Your task to perform on an android device: add a label to a message in the gmail app Image 0: 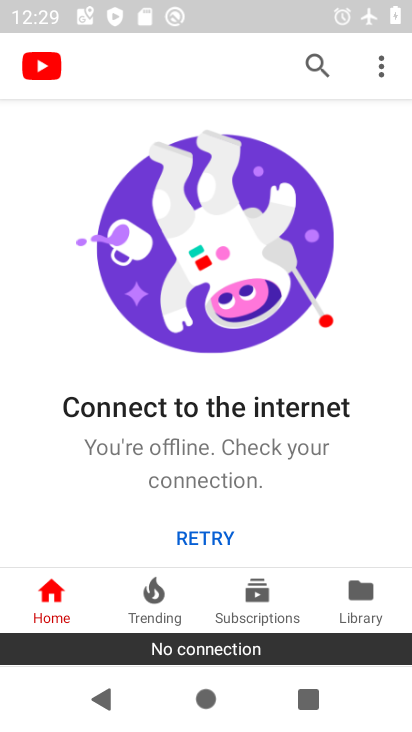
Step 0: press back button
Your task to perform on an android device: add a label to a message in the gmail app Image 1: 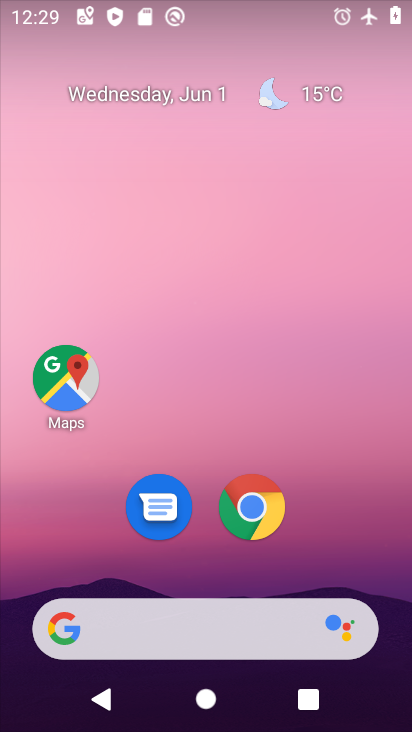
Step 1: drag from (328, 563) to (250, 112)
Your task to perform on an android device: add a label to a message in the gmail app Image 2: 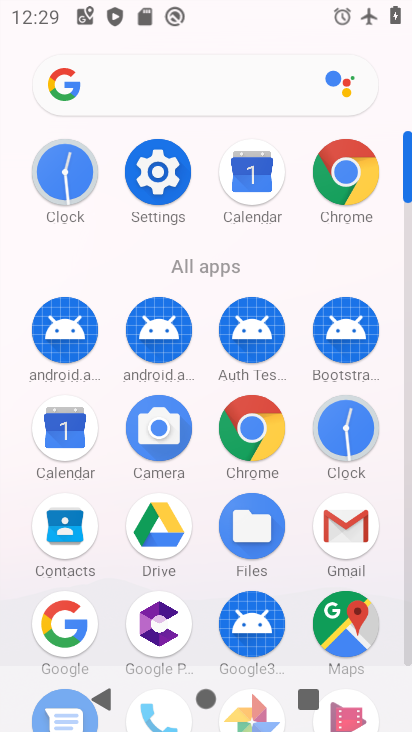
Step 2: click (343, 527)
Your task to perform on an android device: add a label to a message in the gmail app Image 3: 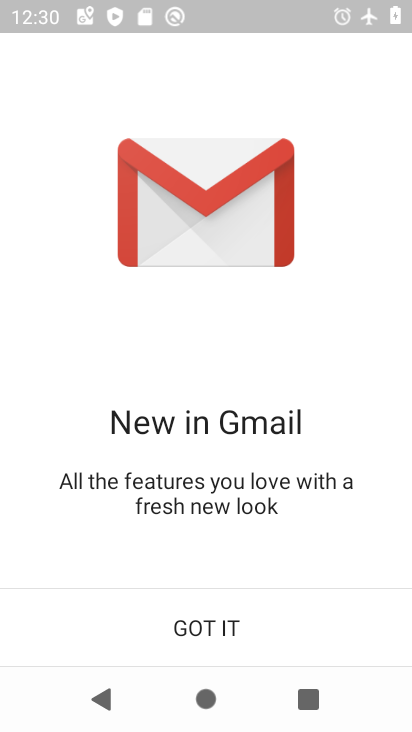
Step 3: click (214, 620)
Your task to perform on an android device: add a label to a message in the gmail app Image 4: 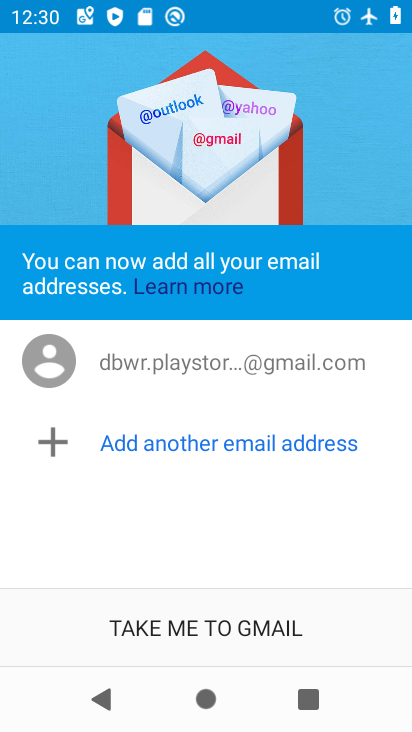
Step 4: click (214, 620)
Your task to perform on an android device: add a label to a message in the gmail app Image 5: 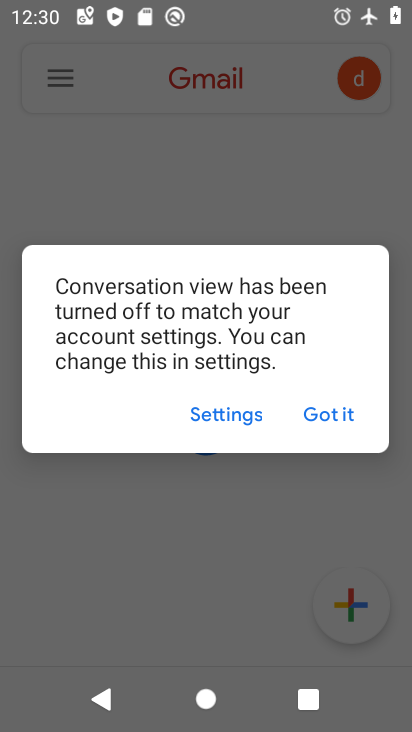
Step 5: click (336, 416)
Your task to perform on an android device: add a label to a message in the gmail app Image 6: 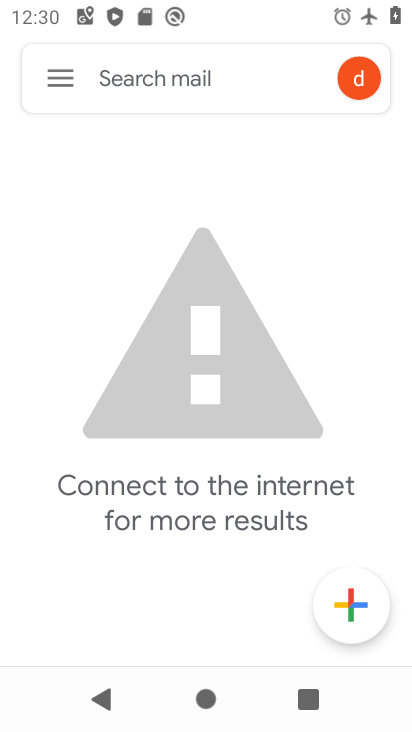
Step 6: click (59, 80)
Your task to perform on an android device: add a label to a message in the gmail app Image 7: 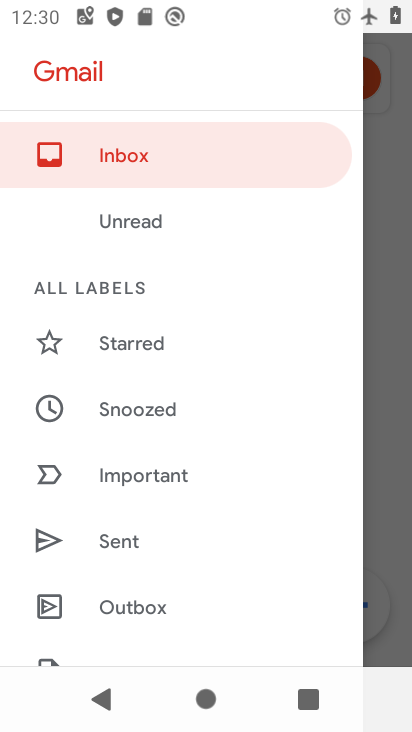
Step 7: click (120, 213)
Your task to perform on an android device: add a label to a message in the gmail app Image 8: 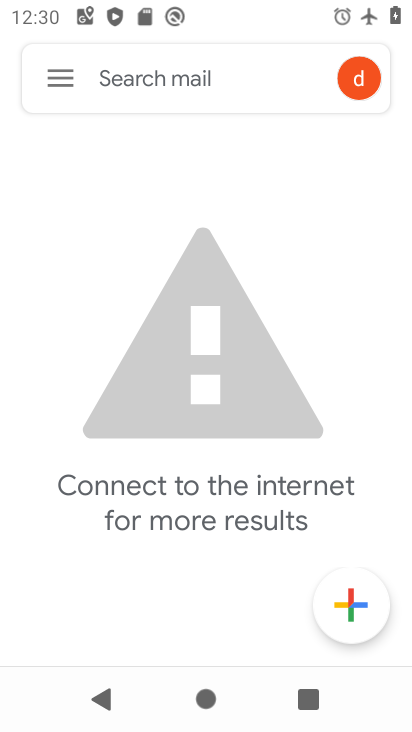
Step 8: click (61, 84)
Your task to perform on an android device: add a label to a message in the gmail app Image 9: 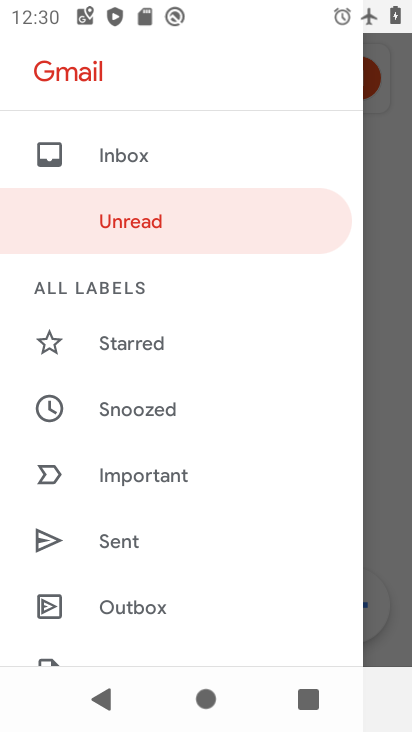
Step 9: click (133, 400)
Your task to perform on an android device: add a label to a message in the gmail app Image 10: 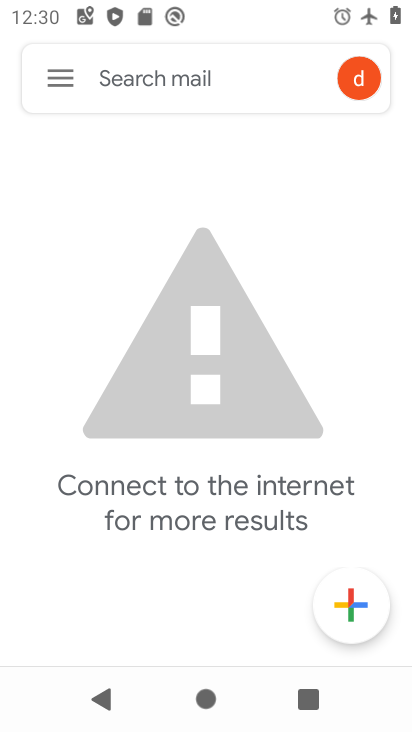
Step 10: task complete